Your task to perform on an android device: Search for pizza restaurants on Maps Image 0: 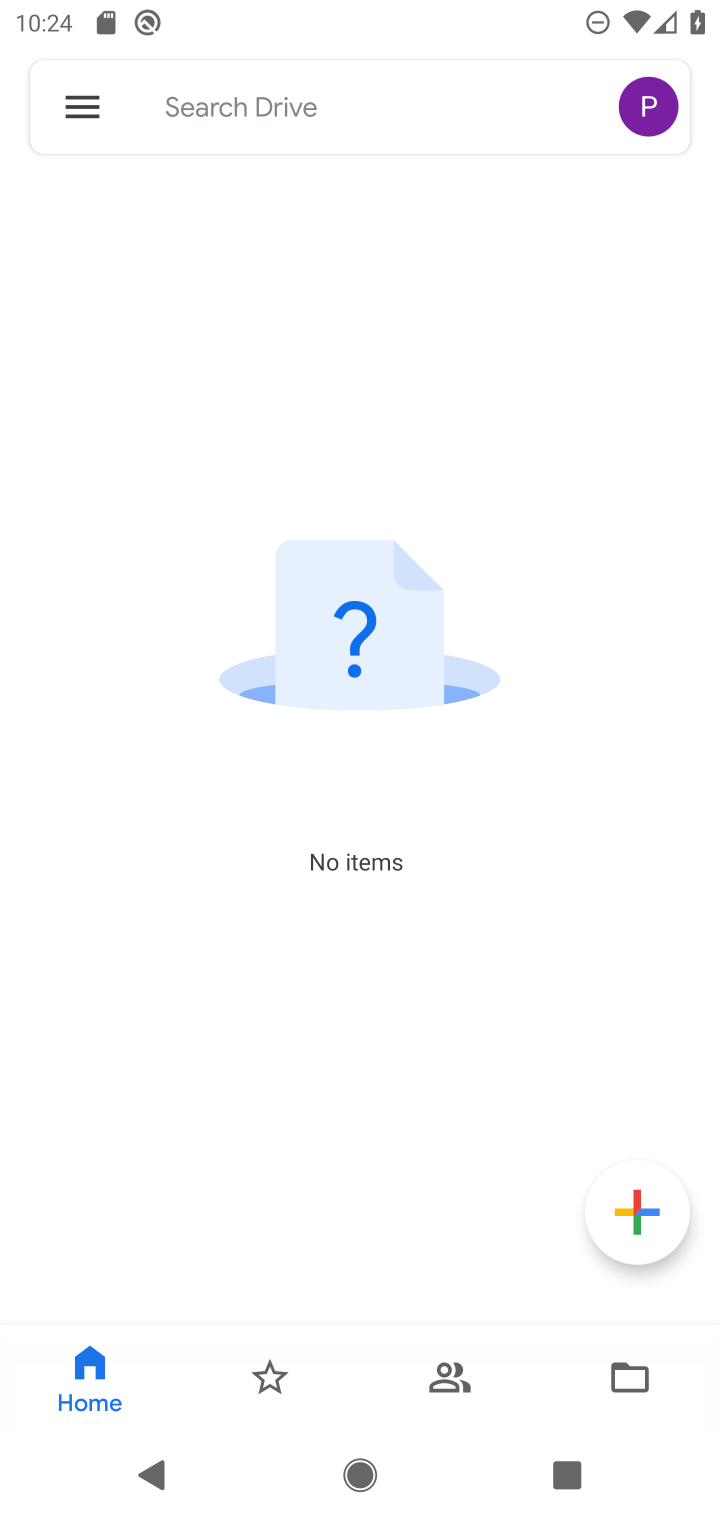
Step 0: press home button
Your task to perform on an android device: Search for pizza restaurants on Maps Image 1: 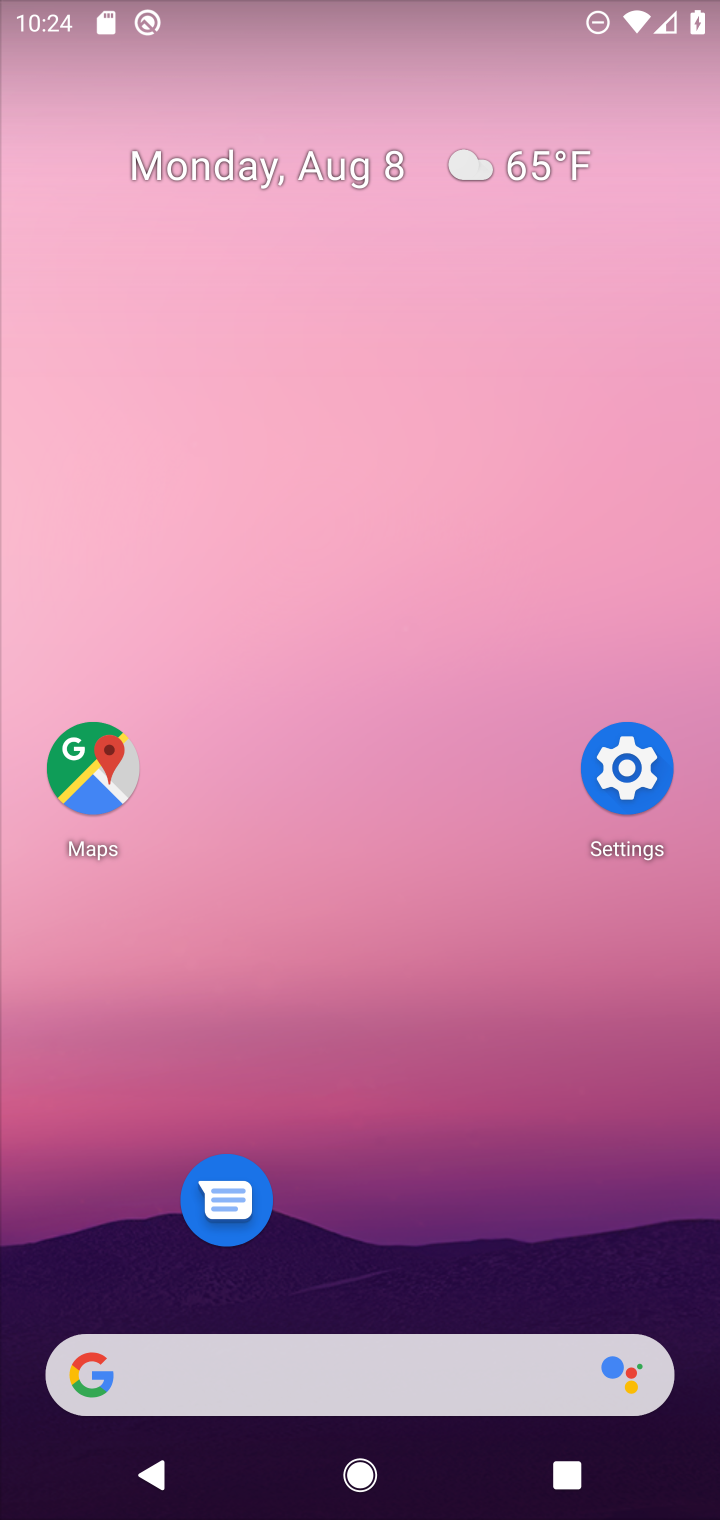
Step 1: click (80, 773)
Your task to perform on an android device: Search for pizza restaurants on Maps Image 2: 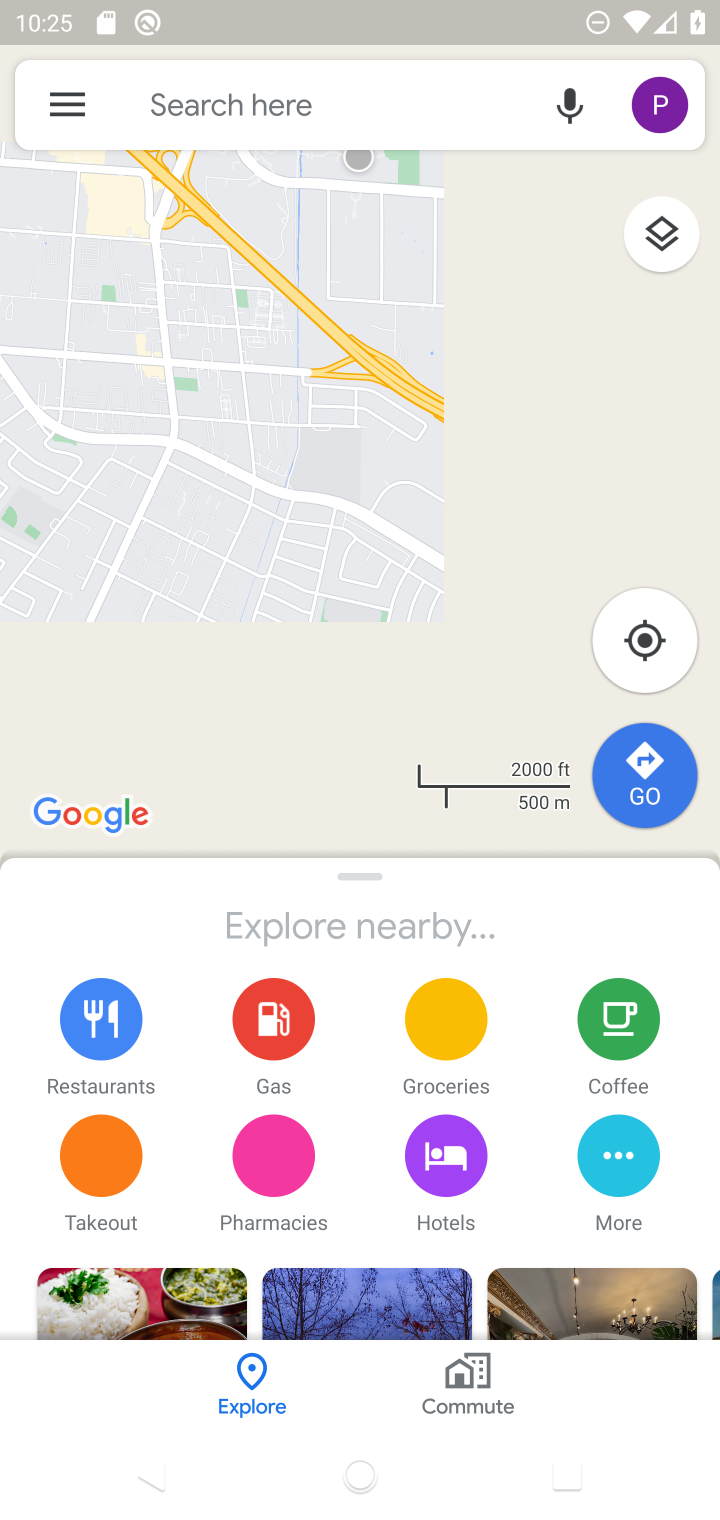
Step 2: click (262, 109)
Your task to perform on an android device: Search for pizza restaurants on Maps Image 3: 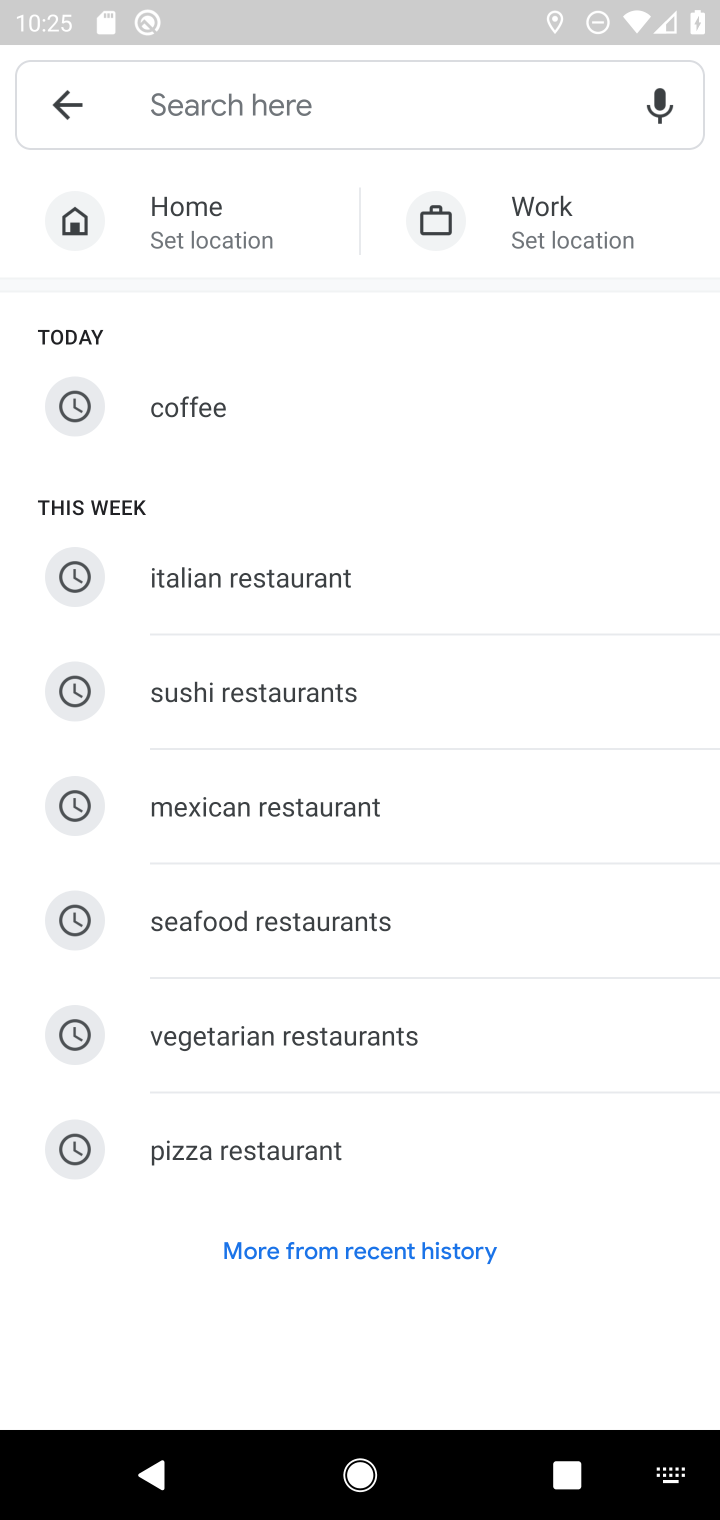
Step 3: click (297, 1142)
Your task to perform on an android device: Search for pizza restaurants on Maps Image 4: 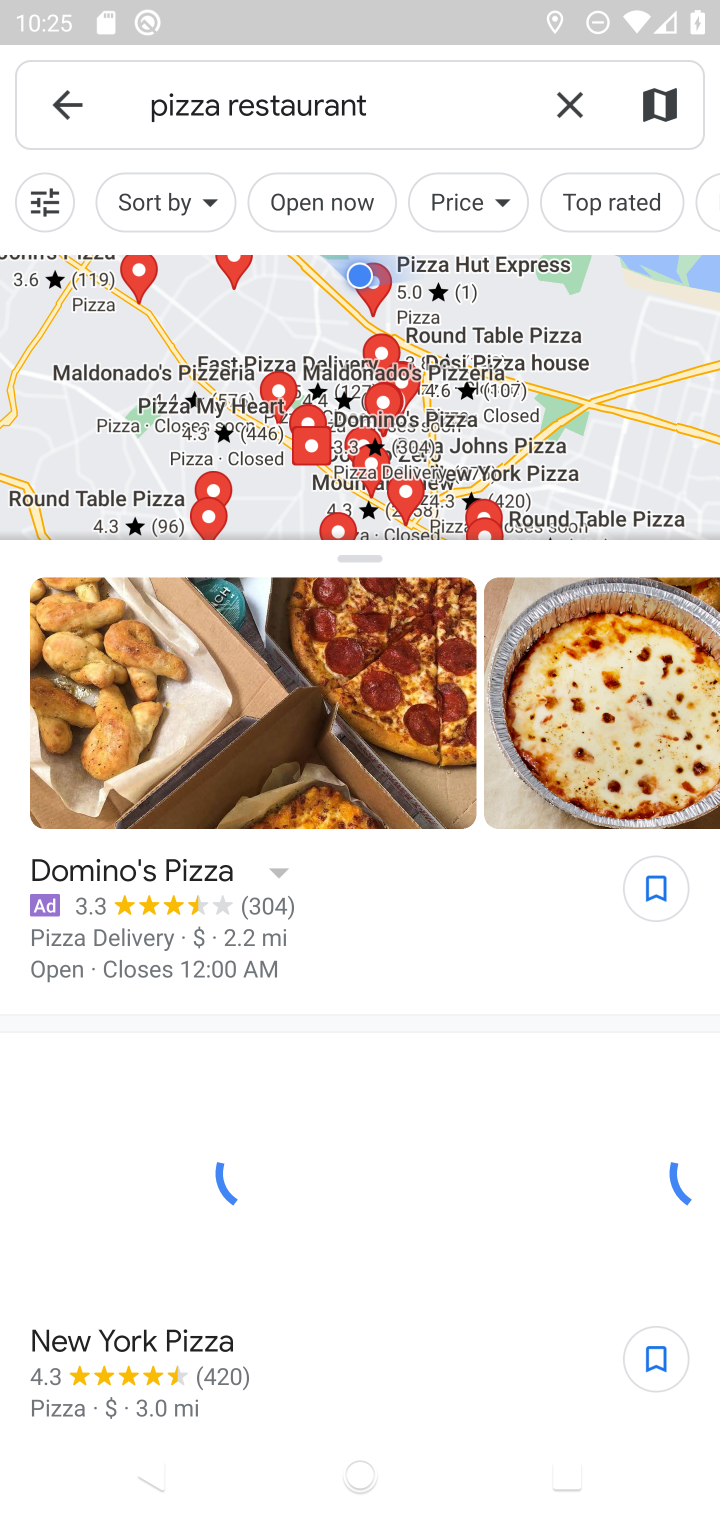
Step 4: task complete